Your task to perform on an android device: read, delete, or share a saved page in the chrome app Image 0: 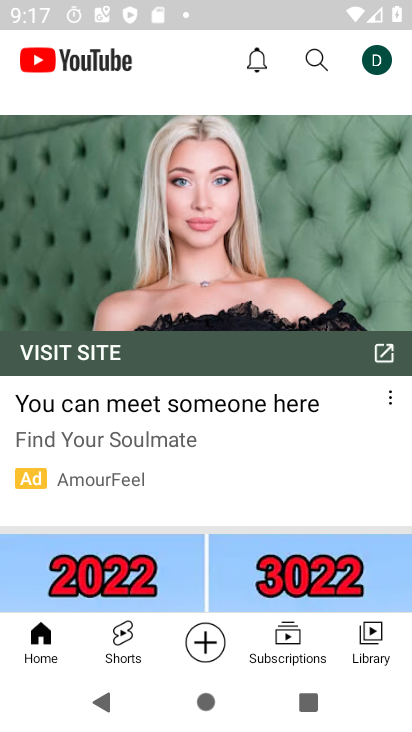
Step 0: press home button
Your task to perform on an android device: read, delete, or share a saved page in the chrome app Image 1: 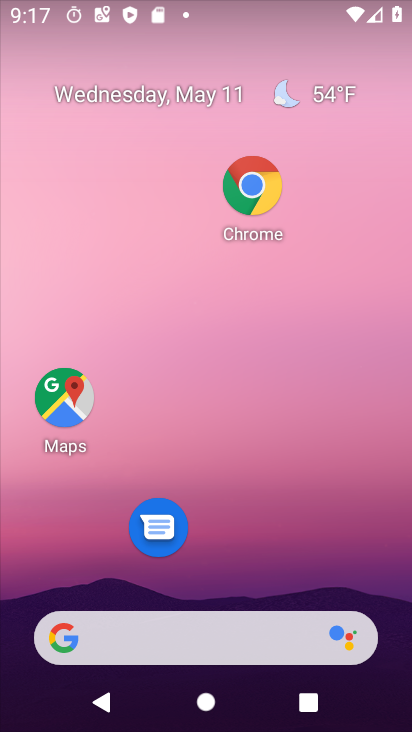
Step 1: drag from (238, 545) to (225, 118)
Your task to perform on an android device: read, delete, or share a saved page in the chrome app Image 2: 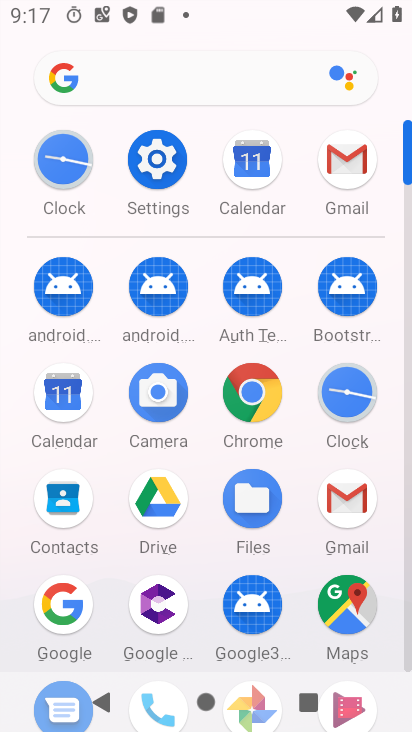
Step 2: click (251, 394)
Your task to perform on an android device: read, delete, or share a saved page in the chrome app Image 3: 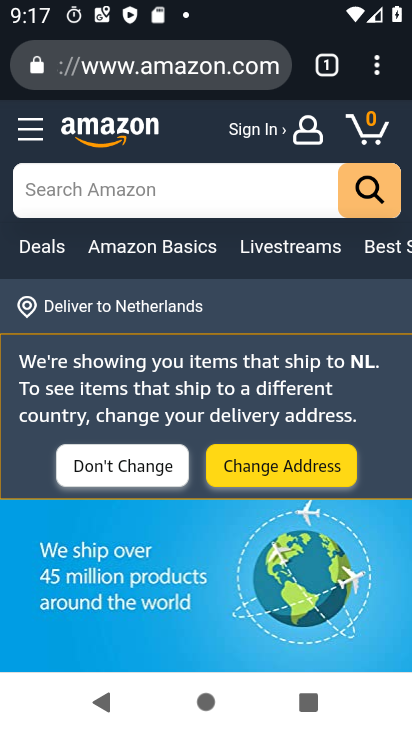
Step 3: click (370, 65)
Your task to perform on an android device: read, delete, or share a saved page in the chrome app Image 4: 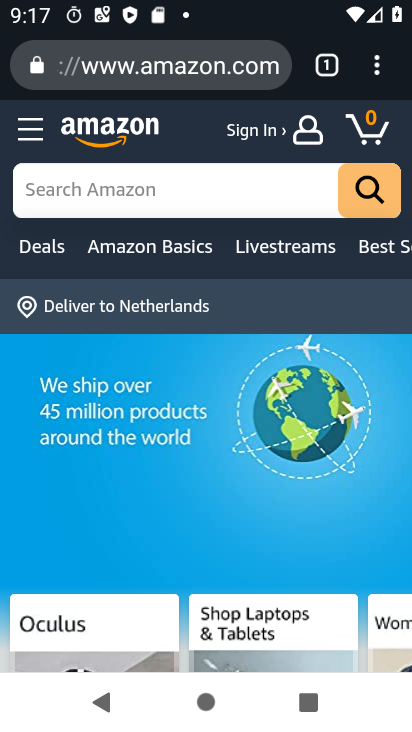
Step 4: click (365, 65)
Your task to perform on an android device: read, delete, or share a saved page in the chrome app Image 5: 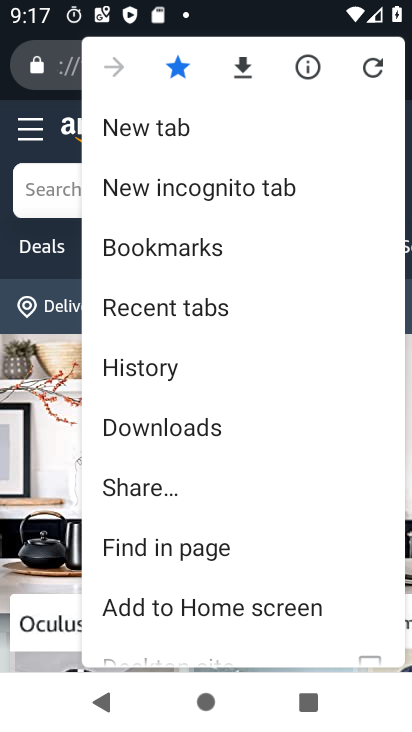
Step 5: click (163, 430)
Your task to perform on an android device: read, delete, or share a saved page in the chrome app Image 6: 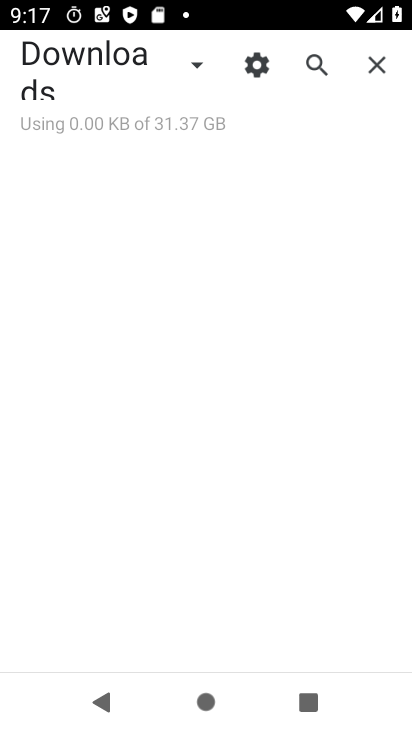
Step 6: task complete